Your task to perform on an android device: Open Google Image 0: 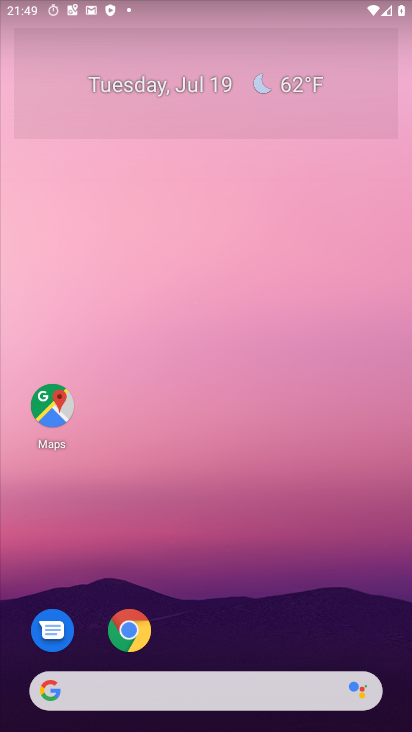
Step 0: click (97, 688)
Your task to perform on an android device: Open Google Image 1: 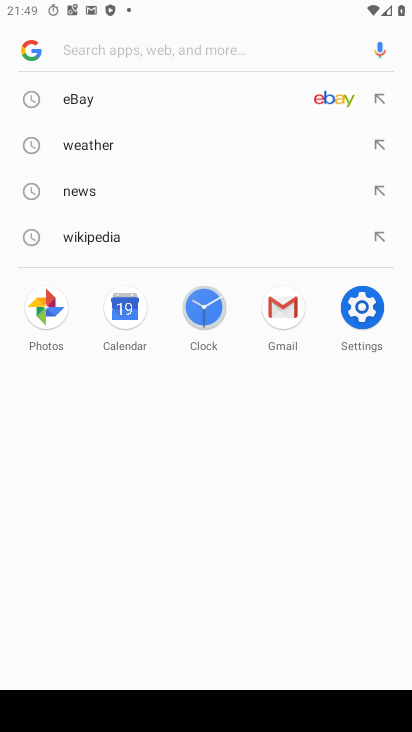
Step 1: task complete